Your task to perform on an android device: check data usage Image 0: 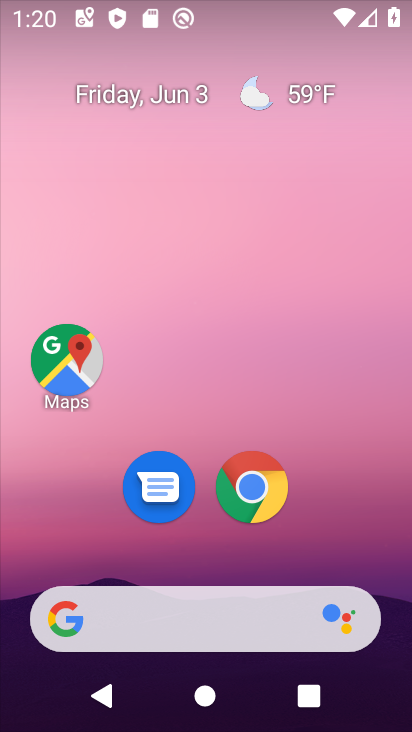
Step 0: drag from (212, 536) to (244, 76)
Your task to perform on an android device: check data usage Image 1: 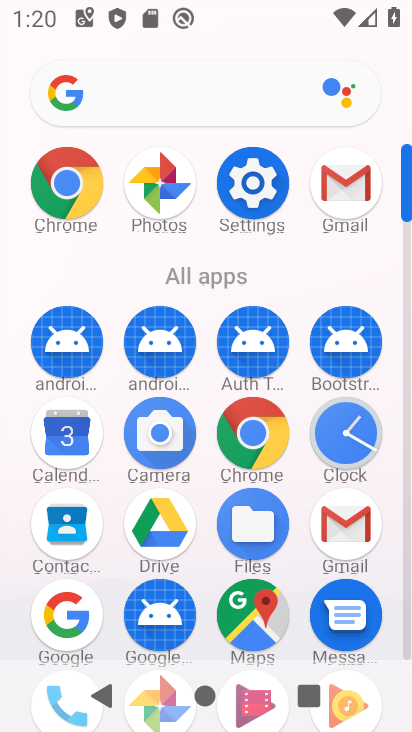
Step 1: click (256, 178)
Your task to perform on an android device: check data usage Image 2: 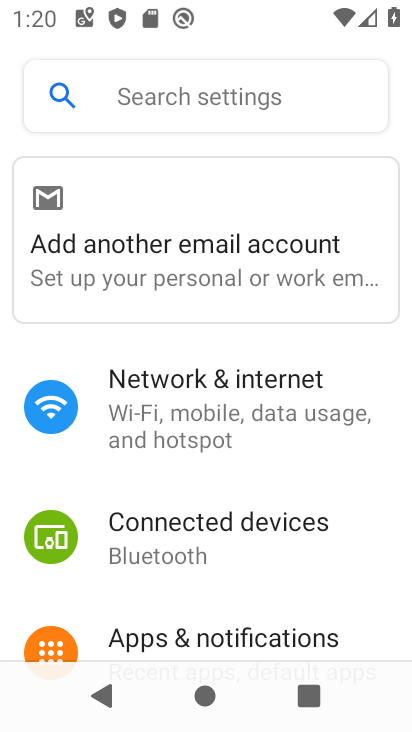
Step 2: click (235, 414)
Your task to perform on an android device: check data usage Image 3: 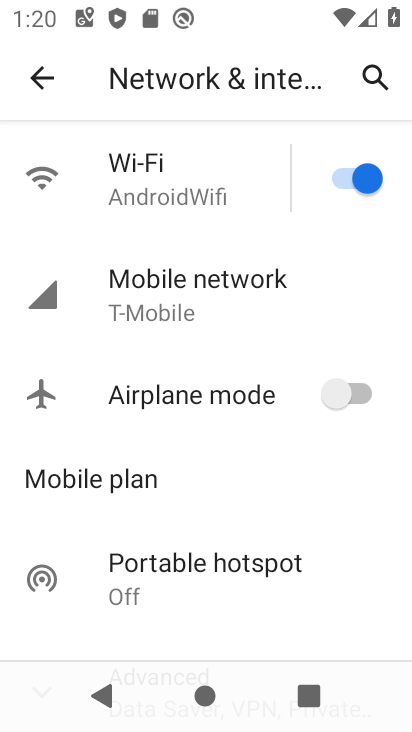
Step 3: drag from (191, 600) to (215, 211)
Your task to perform on an android device: check data usage Image 4: 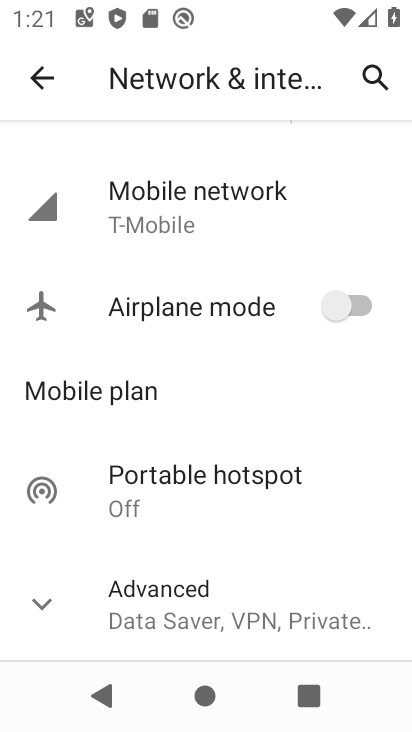
Step 4: click (68, 598)
Your task to perform on an android device: check data usage Image 5: 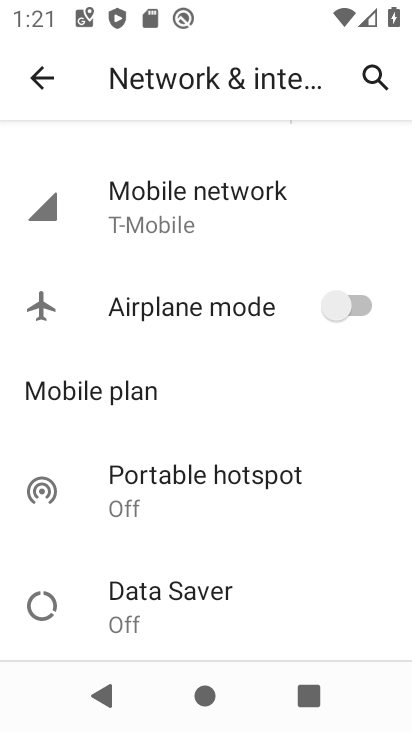
Step 5: click (225, 204)
Your task to perform on an android device: check data usage Image 6: 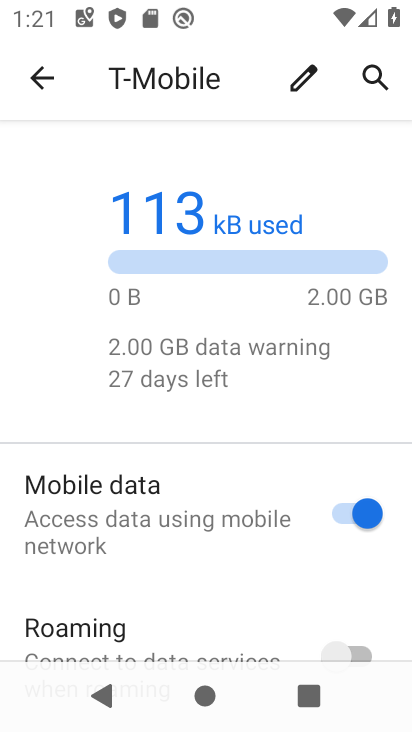
Step 6: drag from (192, 607) to (218, 149)
Your task to perform on an android device: check data usage Image 7: 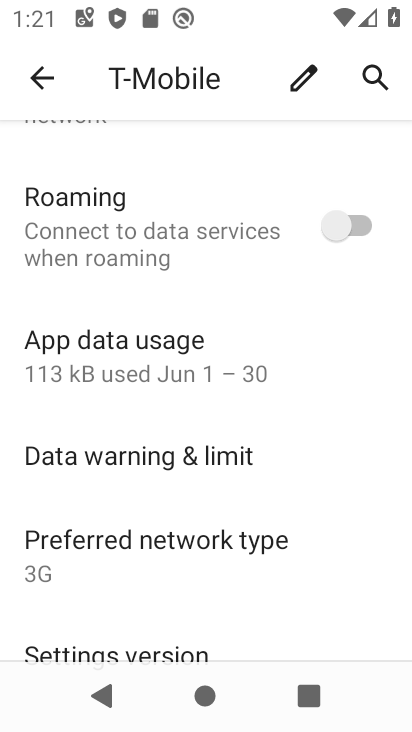
Step 7: click (163, 347)
Your task to perform on an android device: check data usage Image 8: 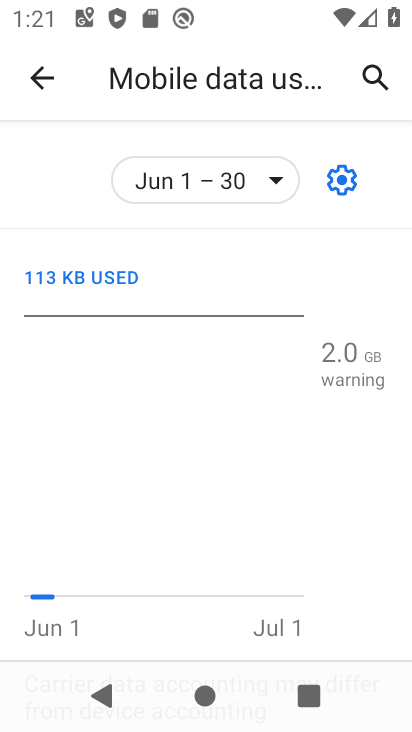
Step 8: task complete